Your task to perform on an android device: Open the calendar and show me this week's events? Image 0: 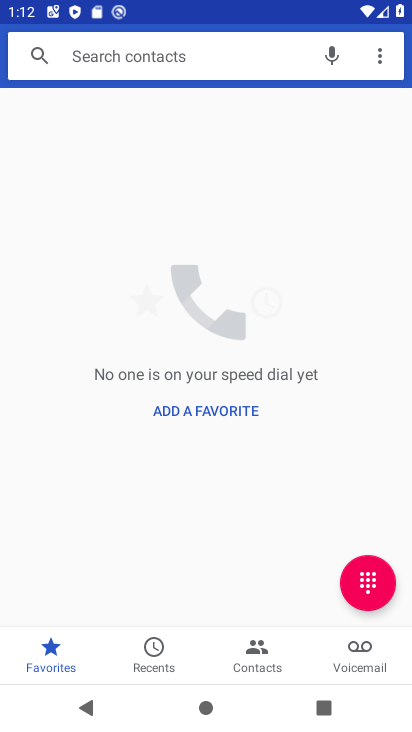
Step 0: press home button
Your task to perform on an android device: Open the calendar and show me this week's events? Image 1: 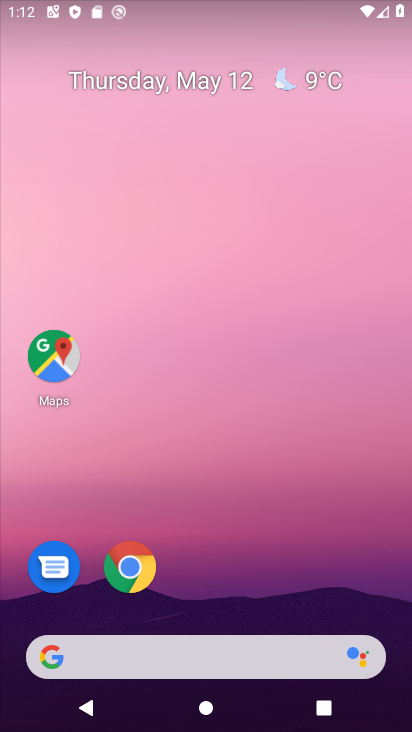
Step 1: drag from (217, 616) to (211, 210)
Your task to perform on an android device: Open the calendar and show me this week's events? Image 2: 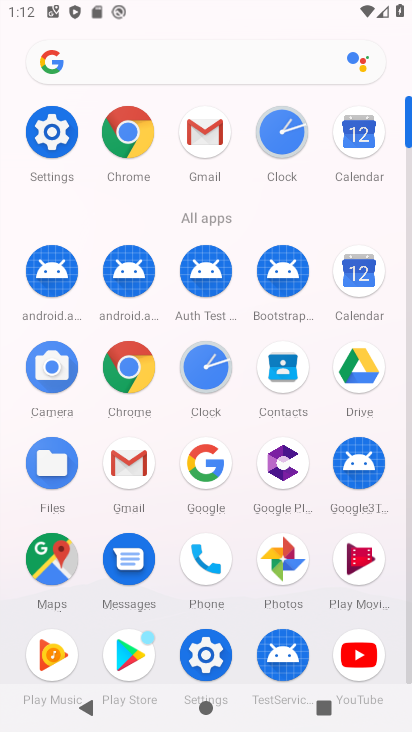
Step 2: click (361, 264)
Your task to perform on an android device: Open the calendar and show me this week's events? Image 3: 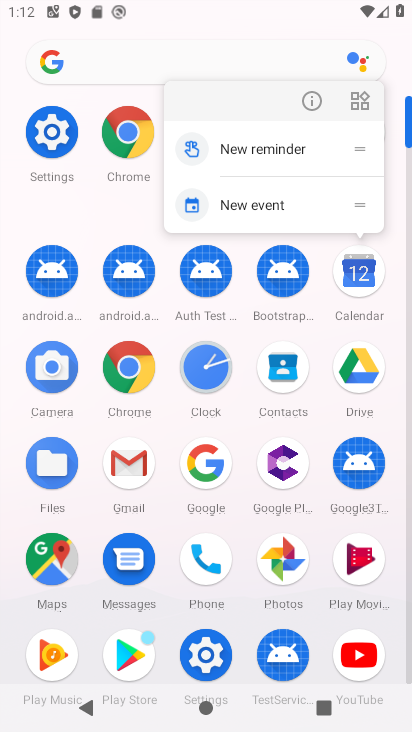
Step 3: click (355, 269)
Your task to perform on an android device: Open the calendar and show me this week's events? Image 4: 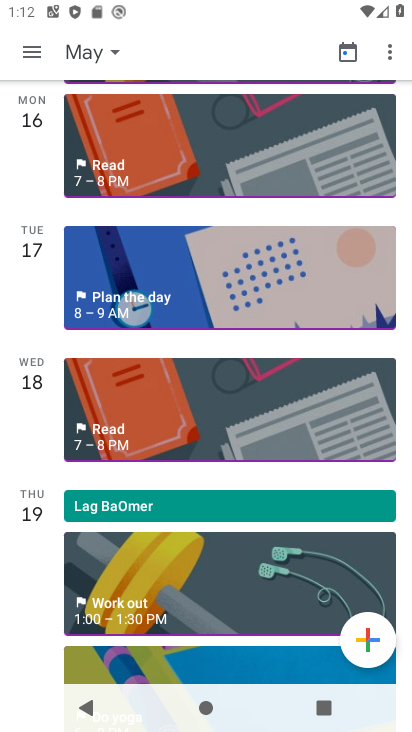
Step 4: task complete